Your task to perform on an android device: Is it going to rain this weekend? Image 0: 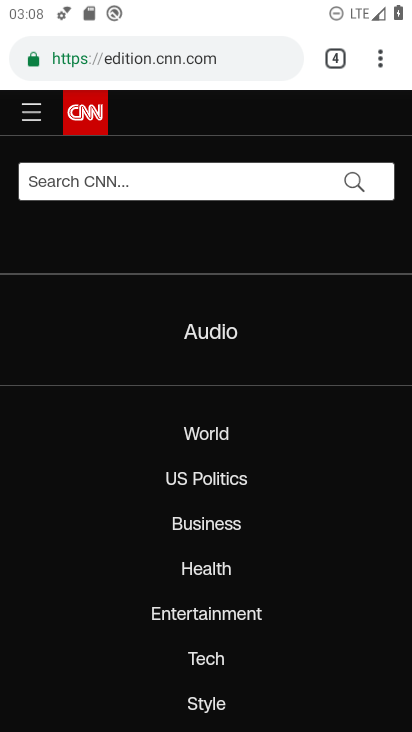
Step 0: press home button
Your task to perform on an android device: Is it going to rain this weekend? Image 1: 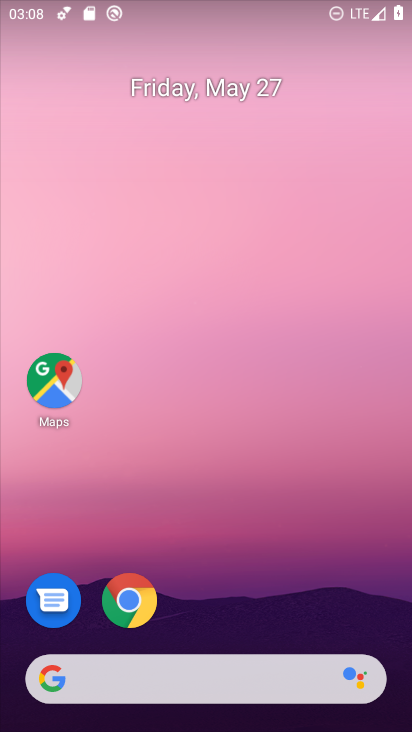
Step 1: drag from (198, 727) to (200, 156)
Your task to perform on an android device: Is it going to rain this weekend? Image 2: 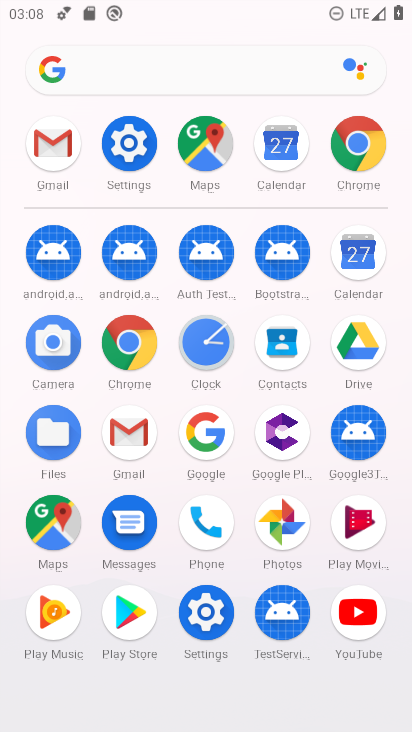
Step 2: click (204, 433)
Your task to perform on an android device: Is it going to rain this weekend? Image 3: 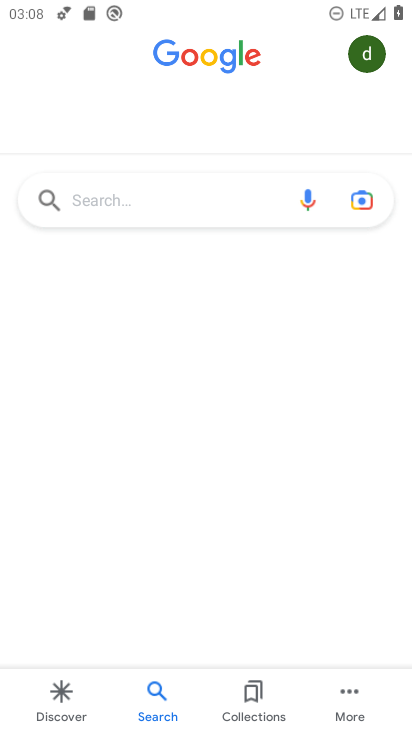
Step 3: click (185, 197)
Your task to perform on an android device: Is it going to rain this weekend? Image 4: 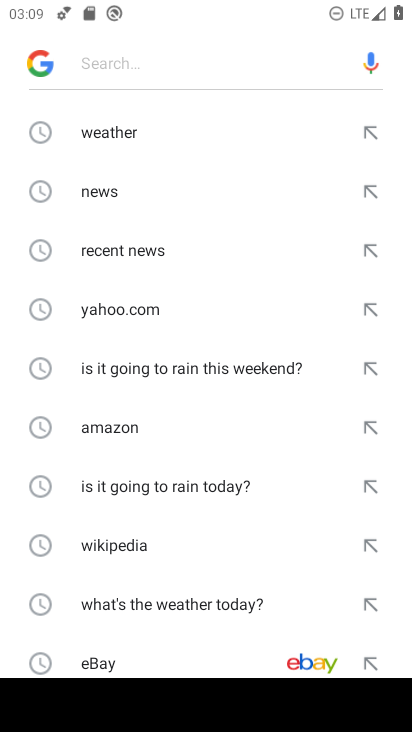
Step 4: click (100, 128)
Your task to perform on an android device: Is it going to rain this weekend? Image 5: 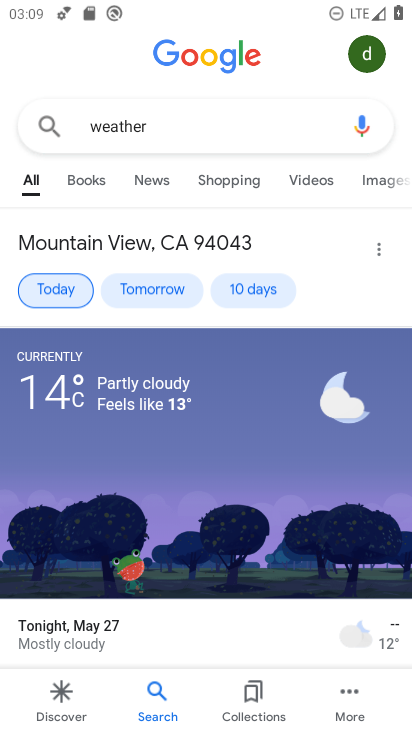
Step 5: click (233, 290)
Your task to perform on an android device: Is it going to rain this weekend? Image 6: 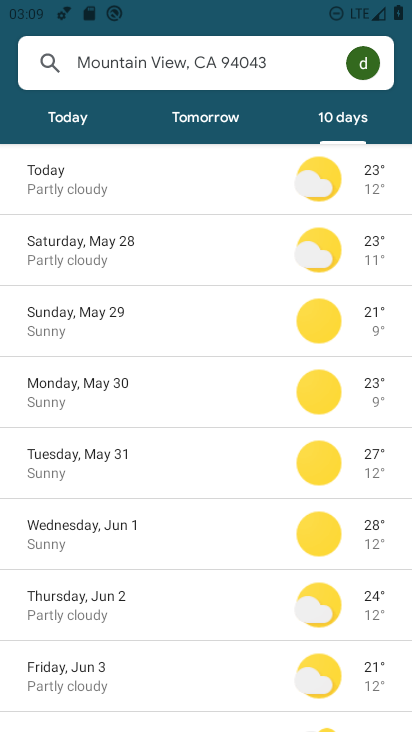
Step 6: click (123, 248)
Your task to perform on an android device: Is it going to rain this weekend? Image 7: 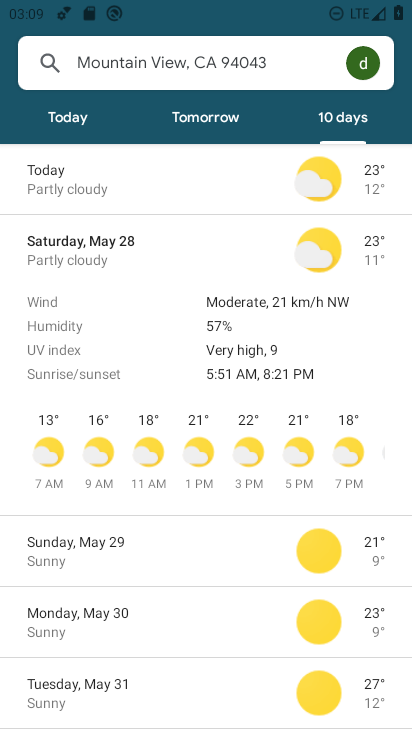
Step 7: task complete